Your task to perform on an android device: open wifi settings Image 0: 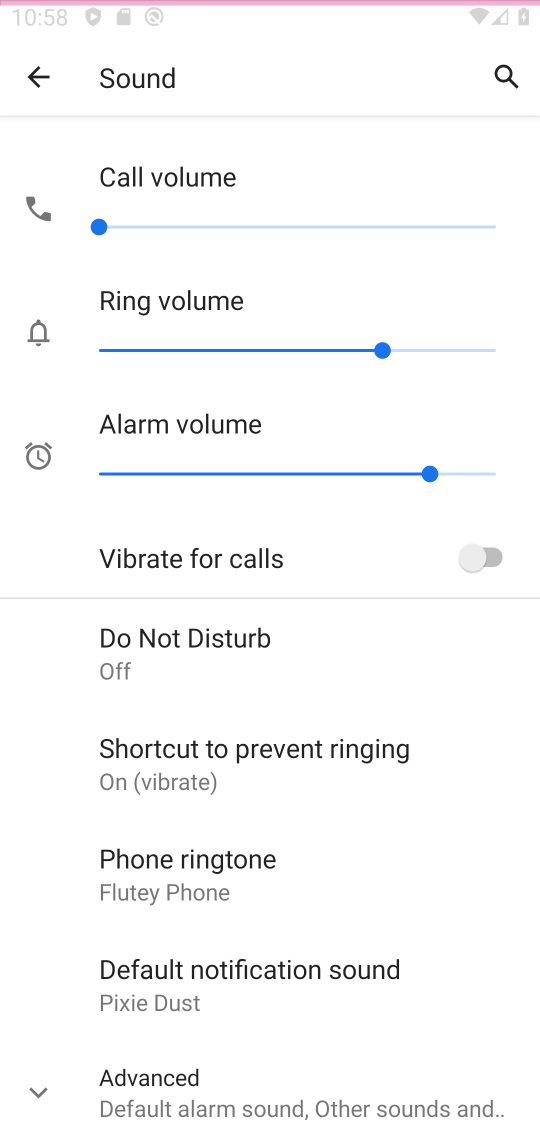
Step 0: click (225, 1005)
Your task to perform on an android device: open wifi settings Image 1: 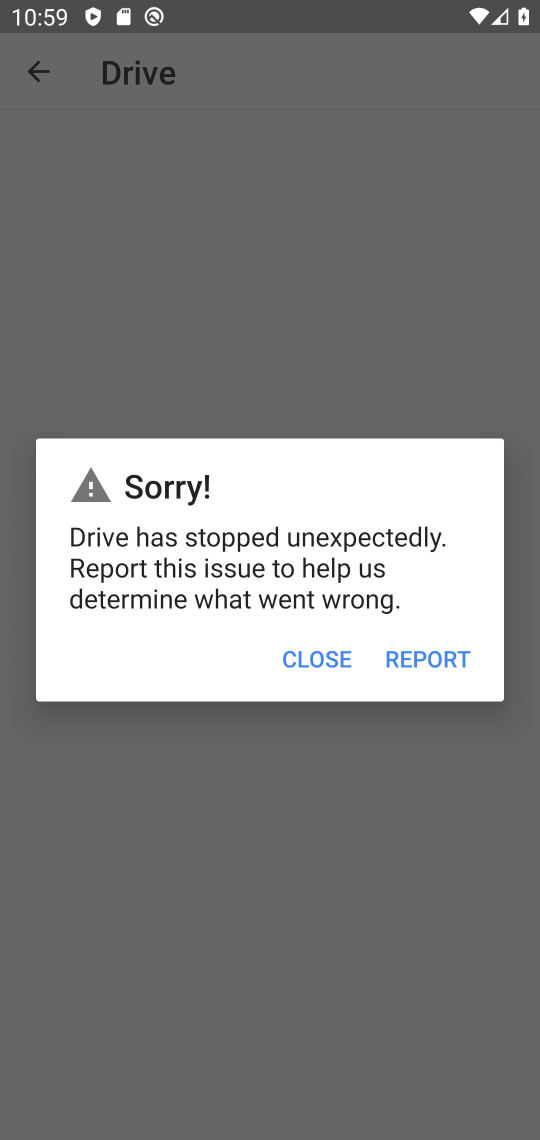
Step 1: press home button
Your task to perform on an android device: open wifi settings Image 2: 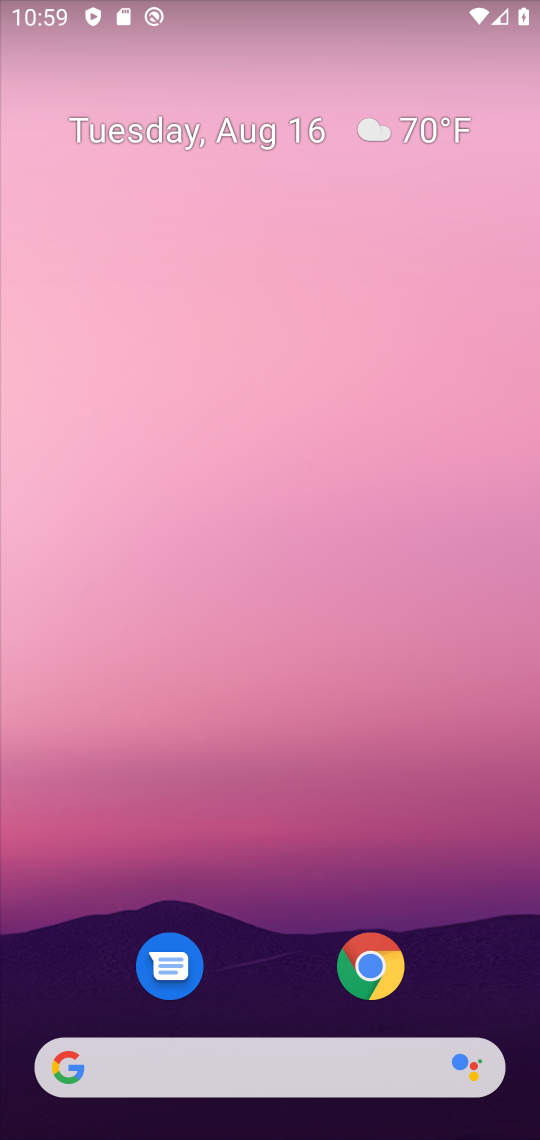
Step 2: drag from (247, 993) to (147, 15)
Your task to perform on an android device: open wifi settings Image 3: 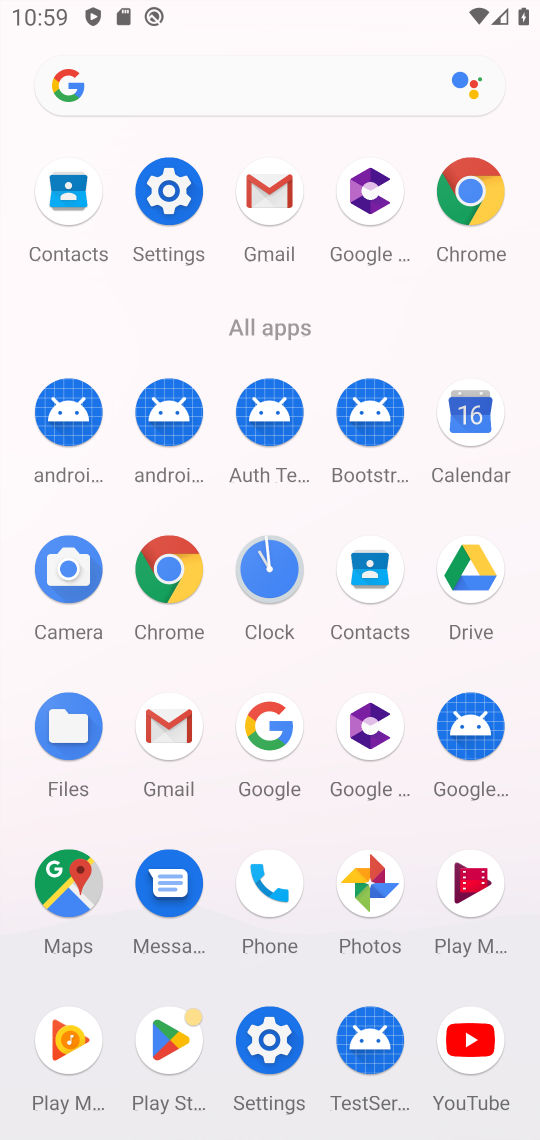
Step 3: click (181, 226)
Your task to perform on an android device: open wifi settings Image 4: 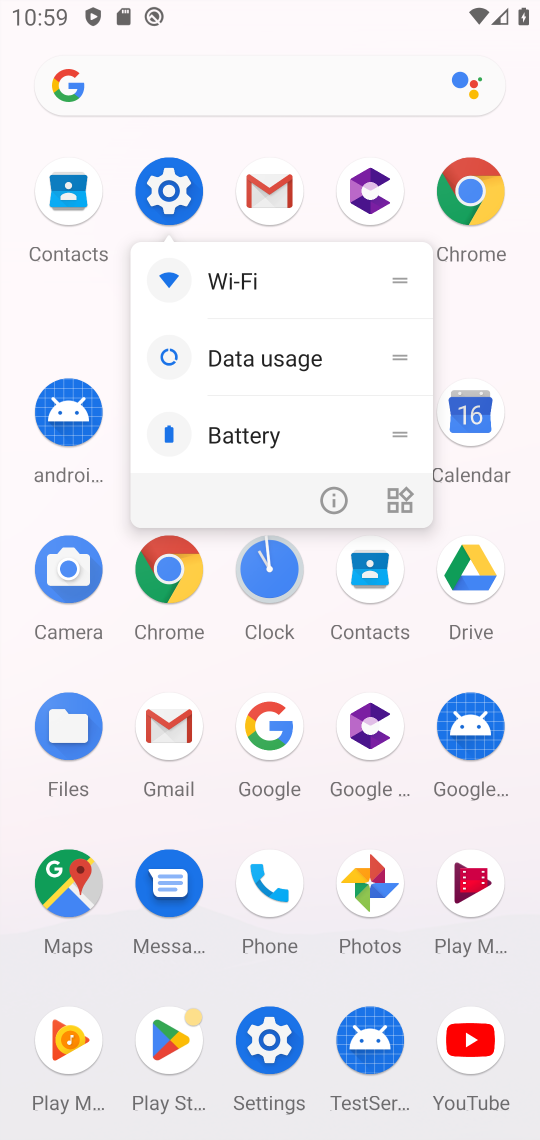
Step 4: click (158, 176)
Your task to perform on an android device: open wifi settings Image 5: 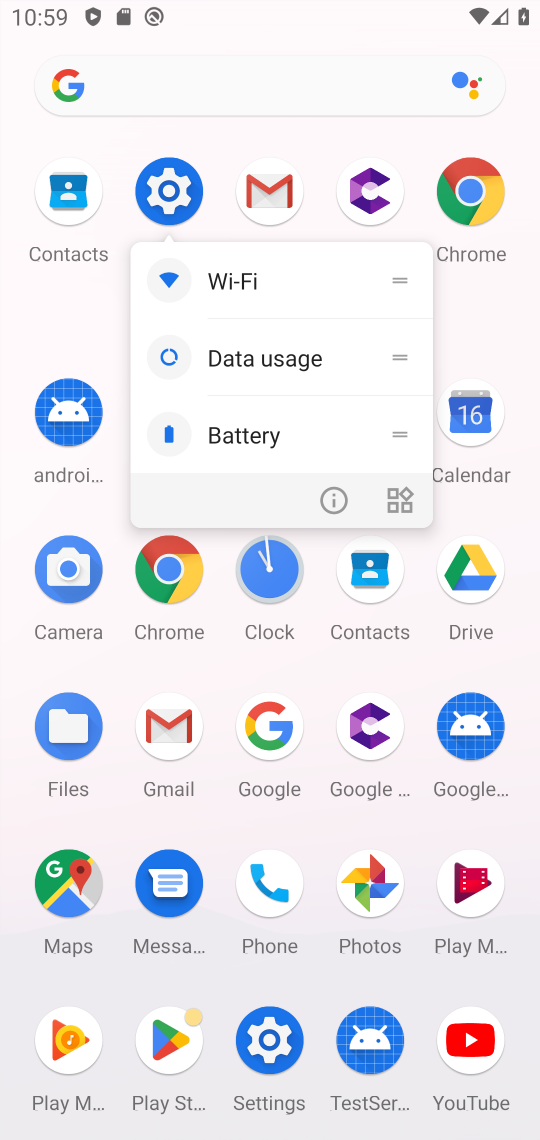
Step 5: click (172, 189)
Your task to perform on an android device: open wifi settings Image 6: 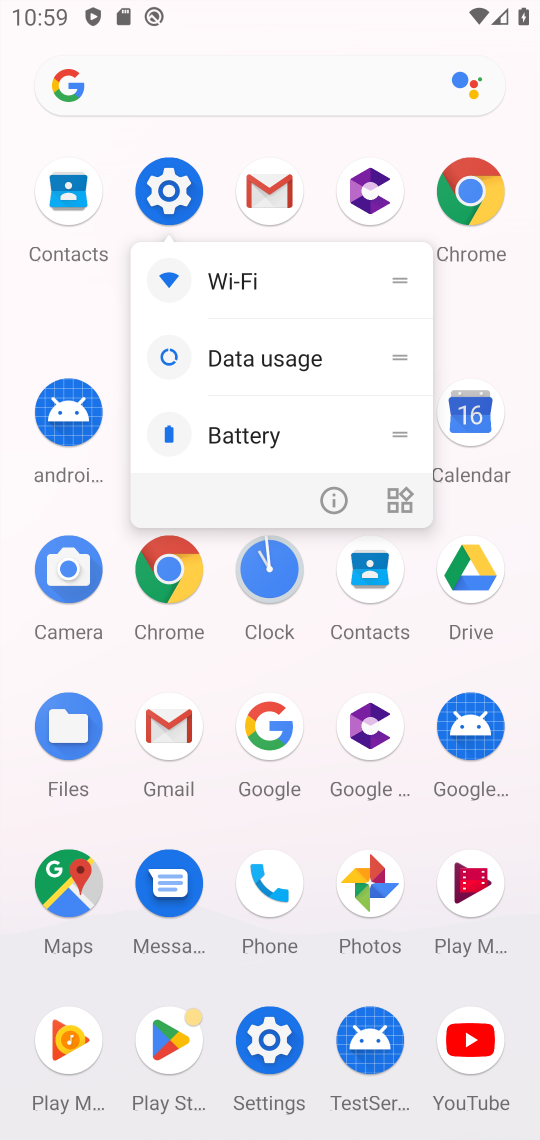
Step 6: click (188, 199)
Your task to perform on an android device: open wifi settings Image 7: 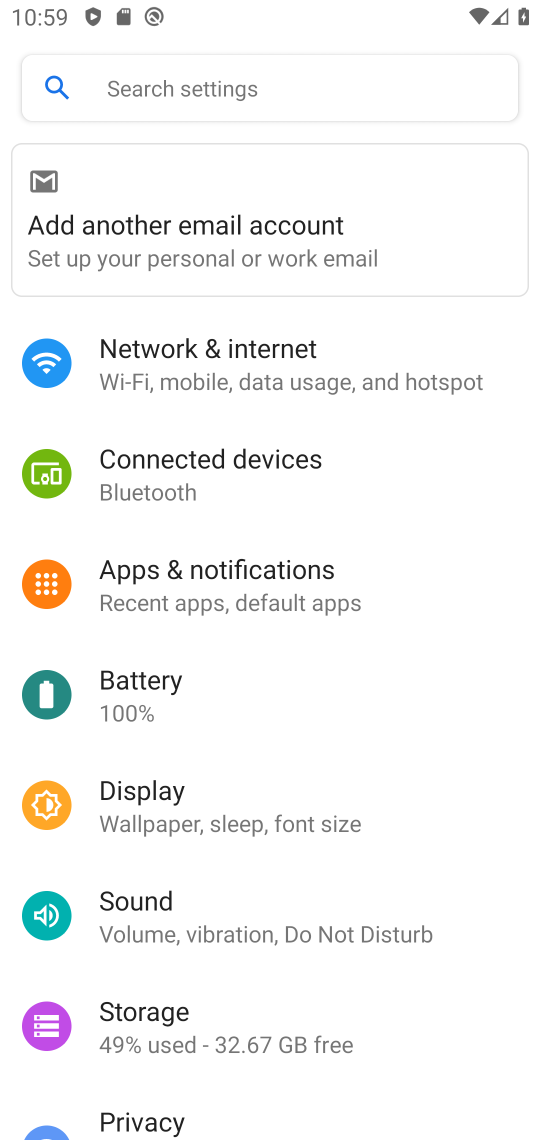
Step 7: click (235, 374)
Your task to perform on an android device: open wifi settings Image 8: 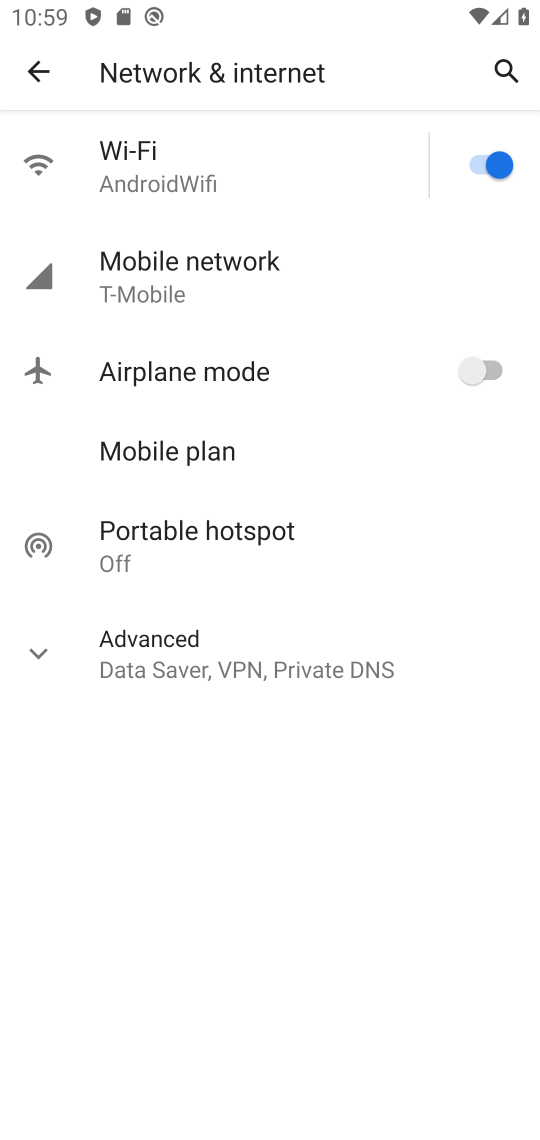
Step 8: click (183, 165)
Your task to perform on an android device: open wifi settings Image 9: 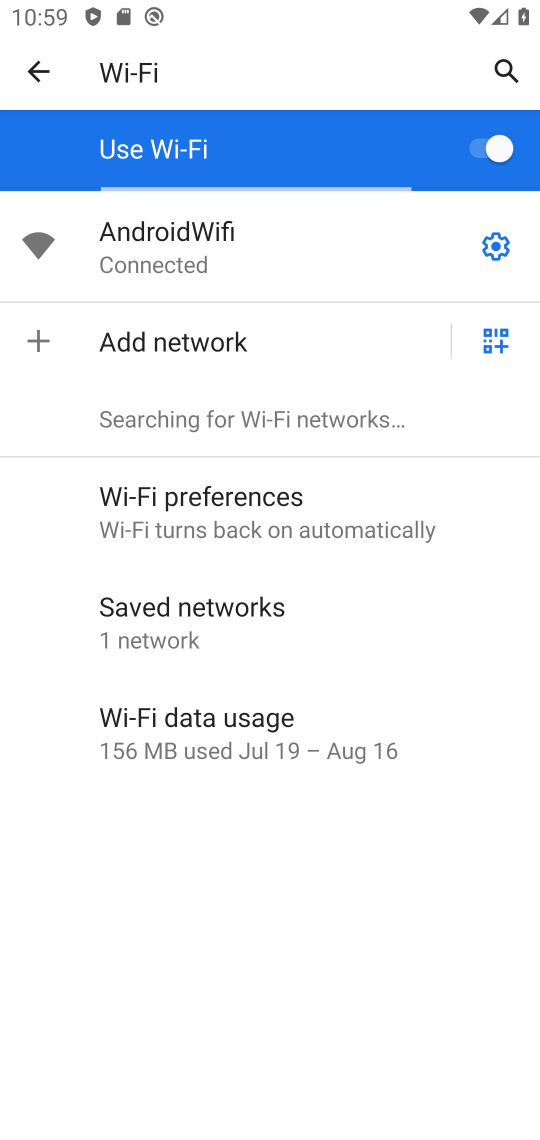
Step 9: task complete